Your task to perform on an android device: check battery use Image 0: 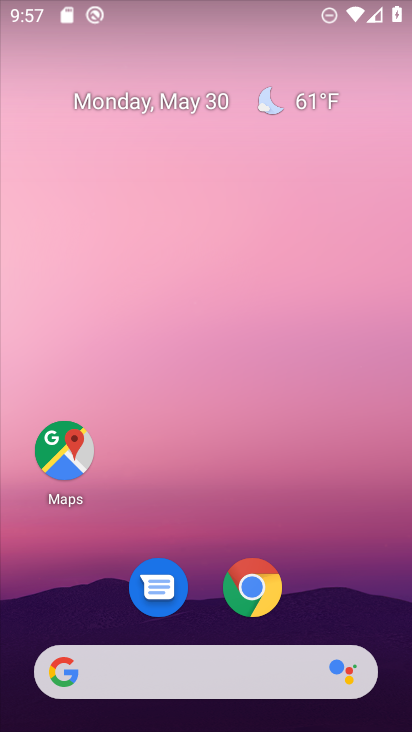
Step 0: drag from (244, 647) to (178, 14)
Your task to perform on an android device: check battery use Image 1: 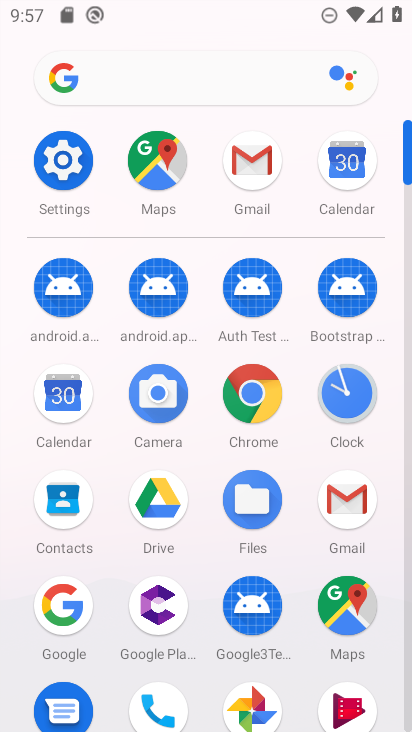
Step 1: click (54, 181)
Your task to perform on an android device: check battery use Image 2: 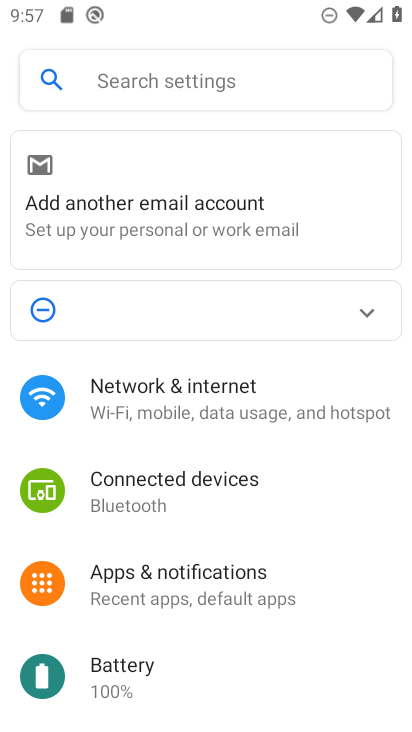
Step 2: click (134, 680)
Your task to perform on an android device: check battery use Image 3: 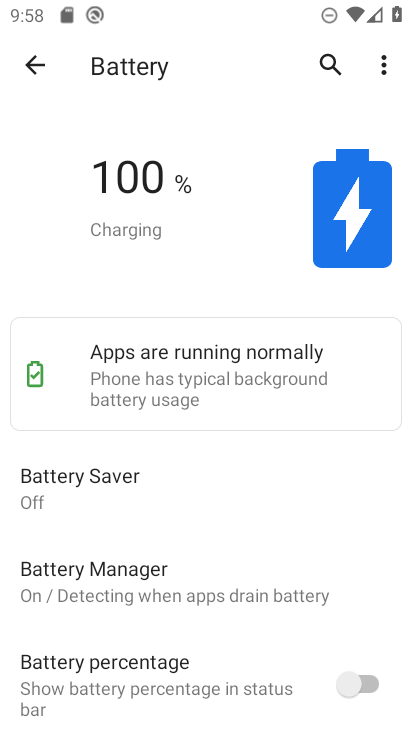
Step 3: click (382, 68)
Your task to perform on an android device: check battery use Image 4: 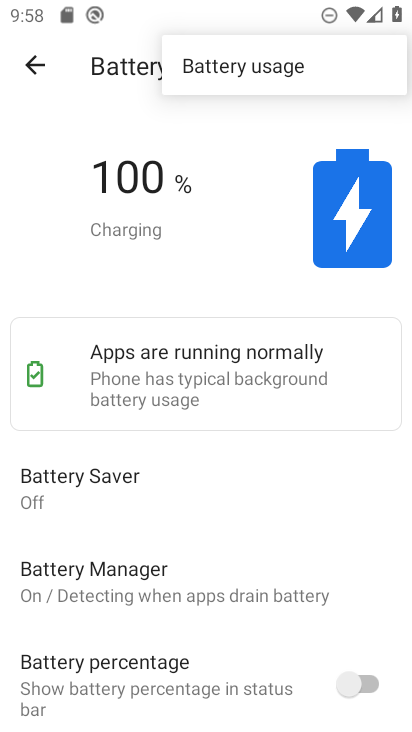
Step 4: click (206, 72)
Your task to perform on an android device: check battery use Image 5: 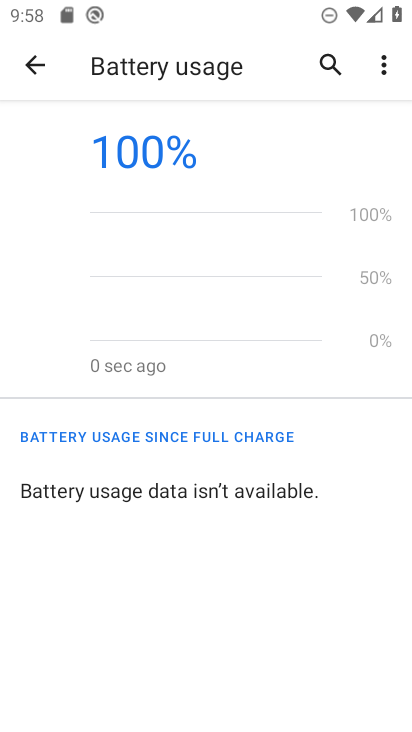
Step 5: task complete